Your task to perform on an android device: turn off notifications settings in the gmail app Image 0: 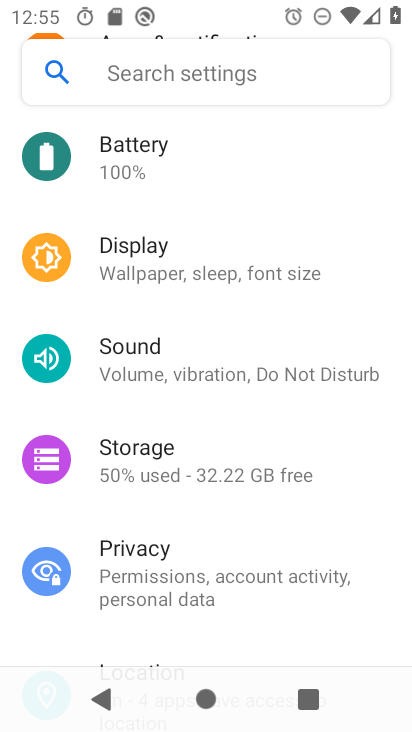
Step 0: press home button
Your task to perform on an android device: turn off notifications settings in the gmail app Image 1: 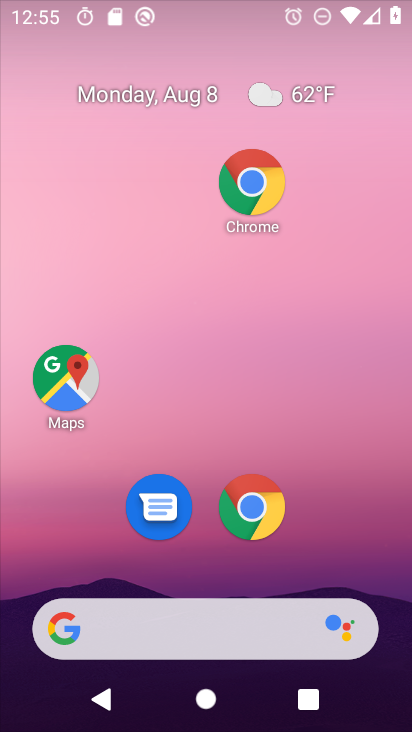
Step 1: drag from (342, 544) to (334, 23)
Your task to perform on an android device: turn off notifications settings in the gmail app Image 2: 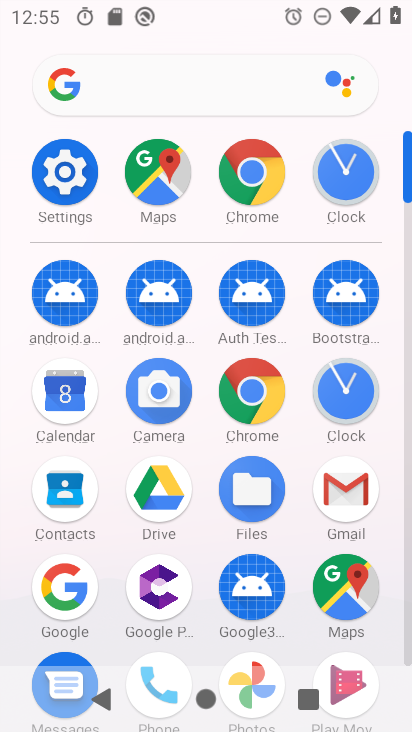
Step 2: click (343, 506)
Your task to perform on an android device: turn off notifications settings in the gmail app Image 3: 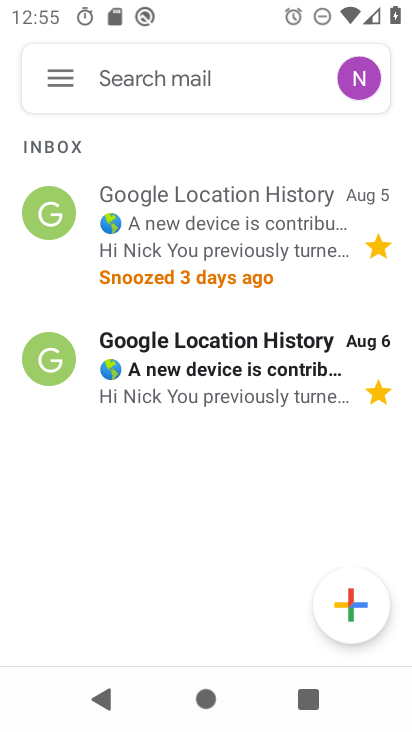
Step 3: click (62, 67)
Your task to perform on an android device: turn off notifications settings in the gmail app Image 4: 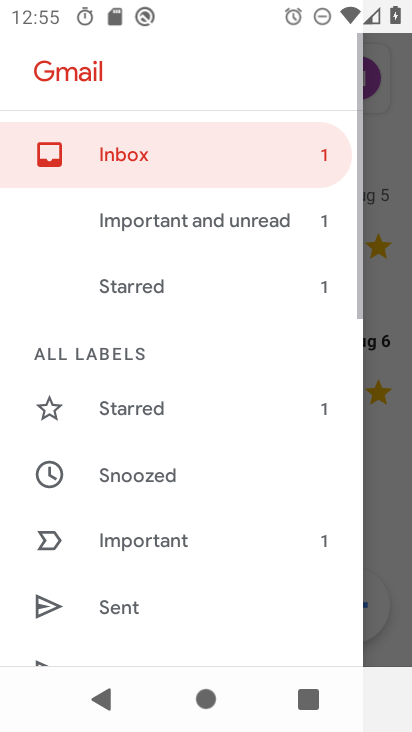
Step 4: drag from (179, 603) to (277, 65)
Your task to perform on an android device: turn off notifications settings in the gmail app Image 5: 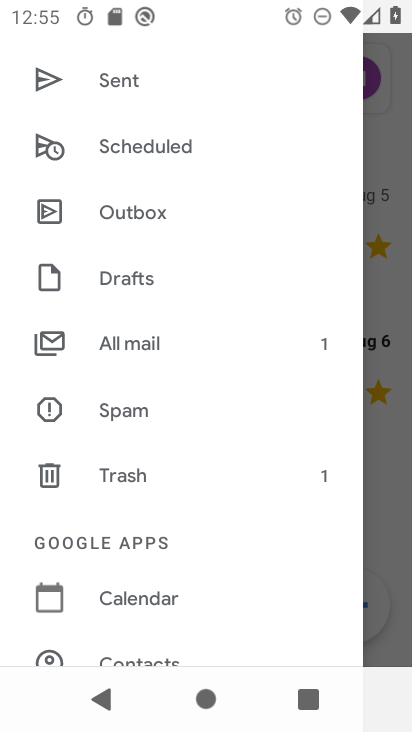
Step 5: drag from (174, 549) to (268, 127)
Your task to perform on an android device: turn off notifications settings in the gmail app Image 6: 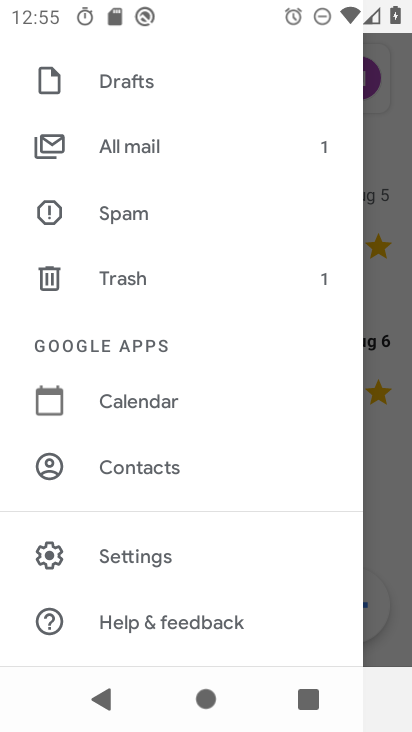
Step 6: click (130, 551)
Your task to perform on an android device: turn off notifications settings in the gmail app Image 7: 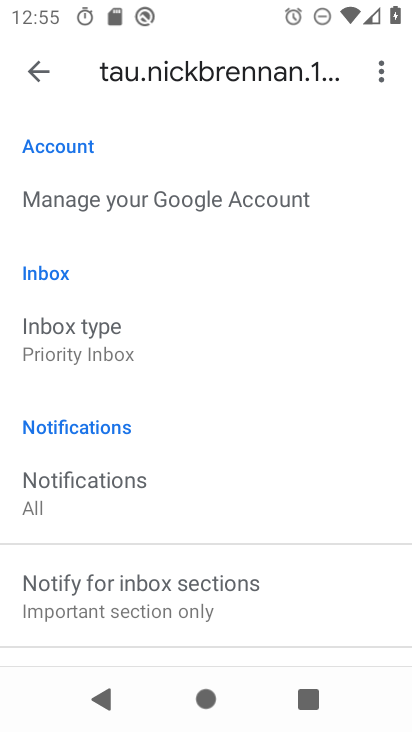
Step 7: drag from (321, 534) to (364, 219)
Your task to perform on an android device: turn off notifications settings in the gmail app Image 8: 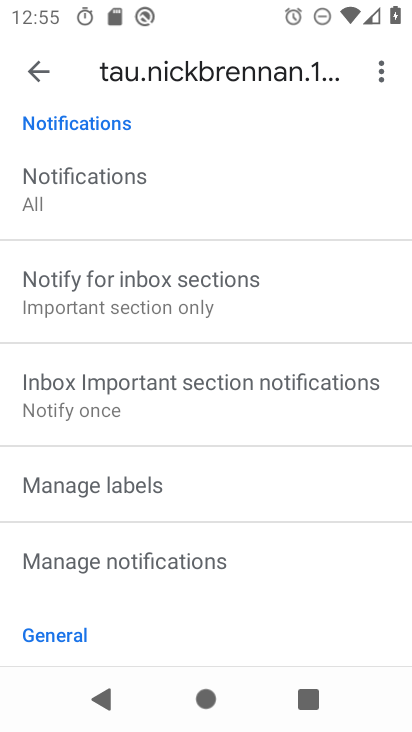
Step 8: click (108, 566)
Your task to perform on an android device: turn off notifications settings in the gmail app Image 9: 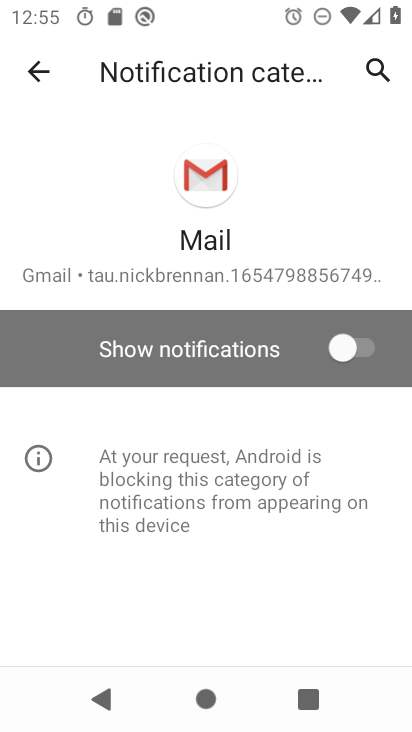
Step 9: task complete